Your task to perform on an android device: Go to Google Image 0: 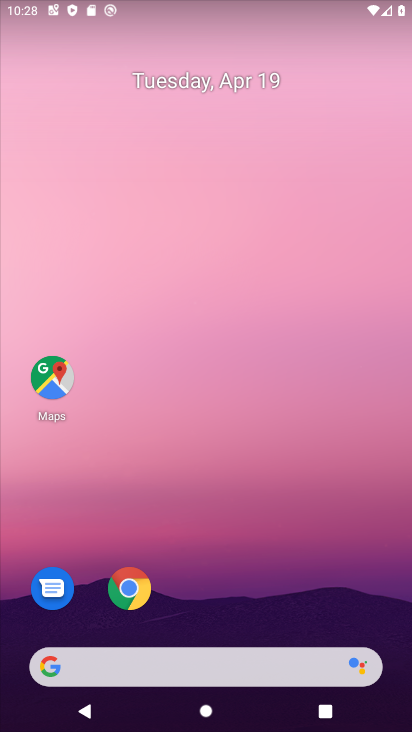
Step 0: click (229, 678)
Your task to perform on an android device: Go to Google Image 1: 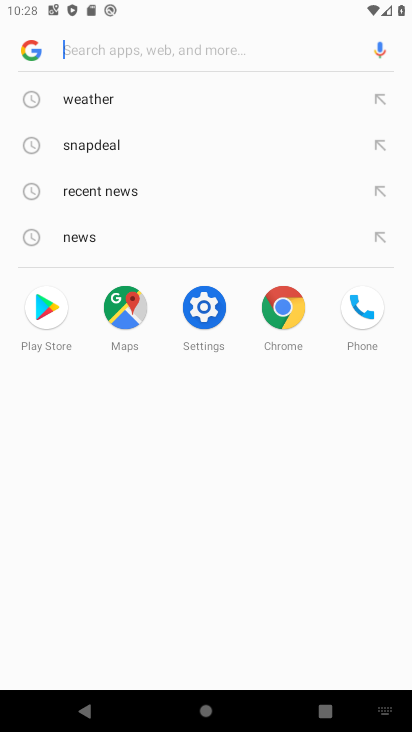
Step 1: task complete